Your task to perform on an android device: choose inbox layout in the gmail app Image 0: 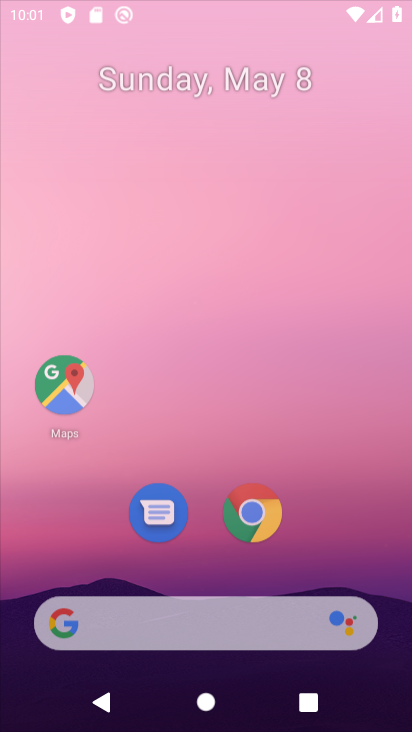
Step 0: drag from (334, 445) to (354, 149)
Your task to perform on an android device: choose inbox layout in the gmail app Image 1: 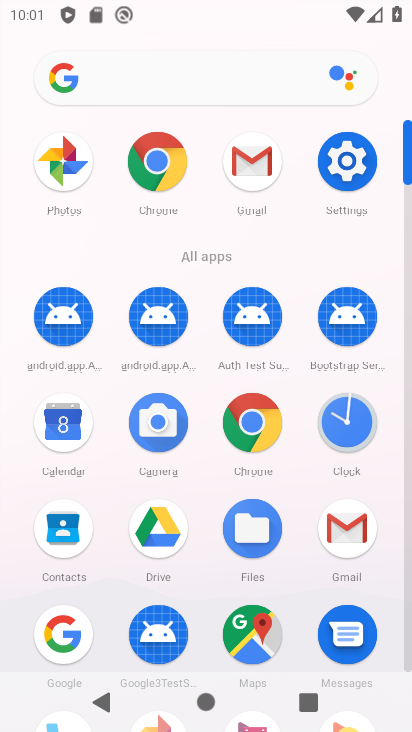
Step 1: click (250, 187)
Your task to perform on an android device: choose inbox layout in the gmail app Image 2: 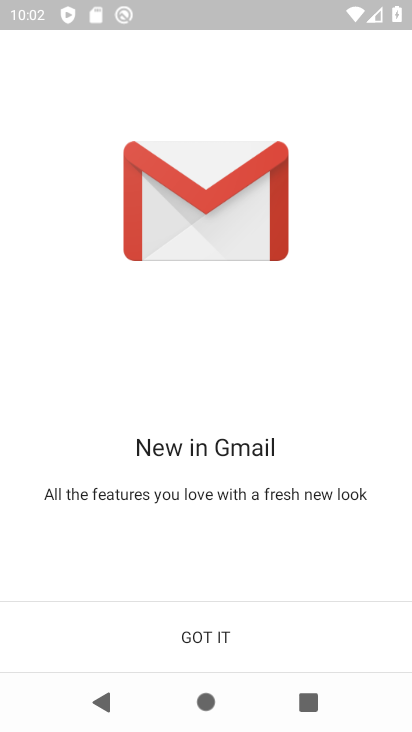
Step 2: click (208, 621)
Your task to perform on an android device: choose inbox layout in the gmail app Image 3: 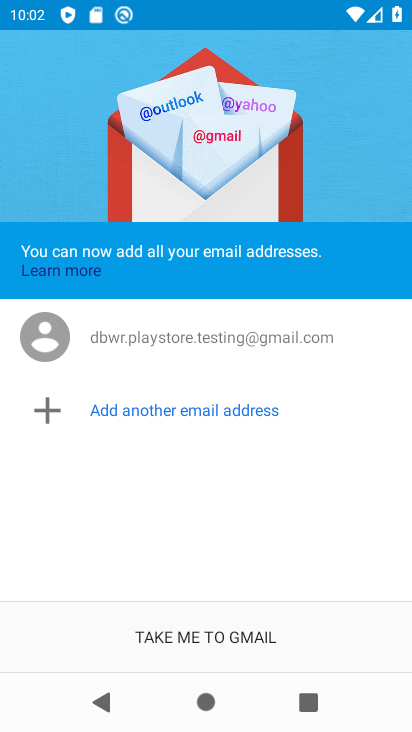
Step 3: click (225, 652)
Your task to perform on an android device: choose inbox layout in the gmail app Image 4: 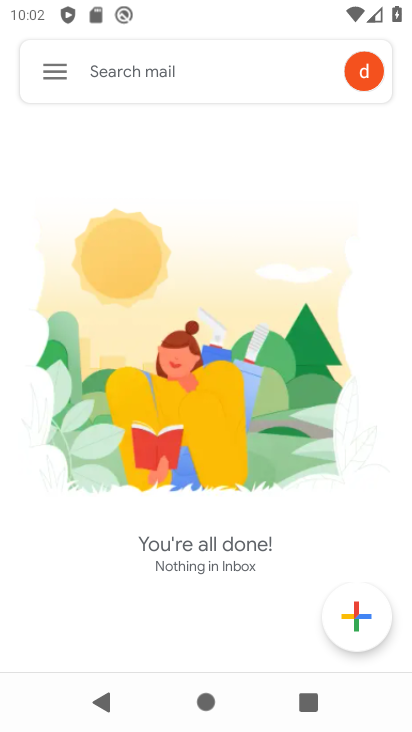
Step 4: click (55, 79)
Your task to perform on an android device: choose inbox layout in the gmail app Image 5: 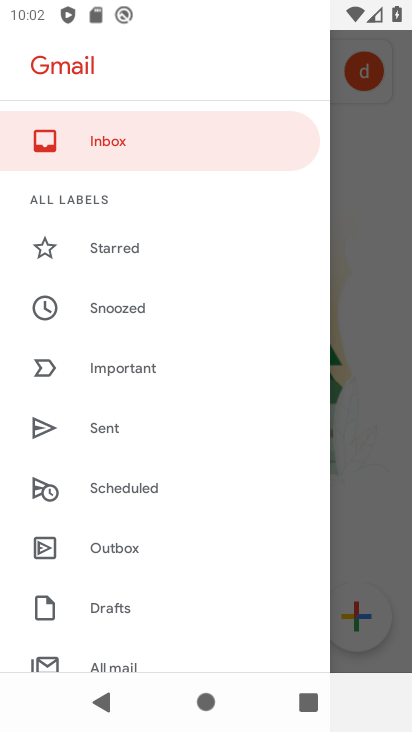
Step 5: click (144, 143)
Your task to perform on an android device: choose inbox layout in the gmail app Image 6: 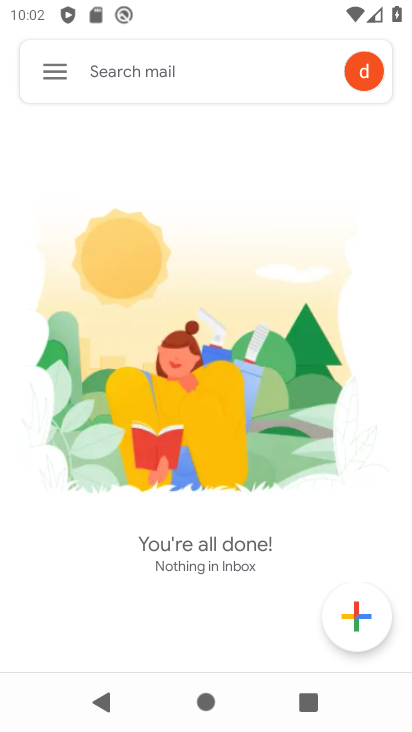
Step 6: task complete